Your task to perform on an android device: turn notification dots off Image 0: 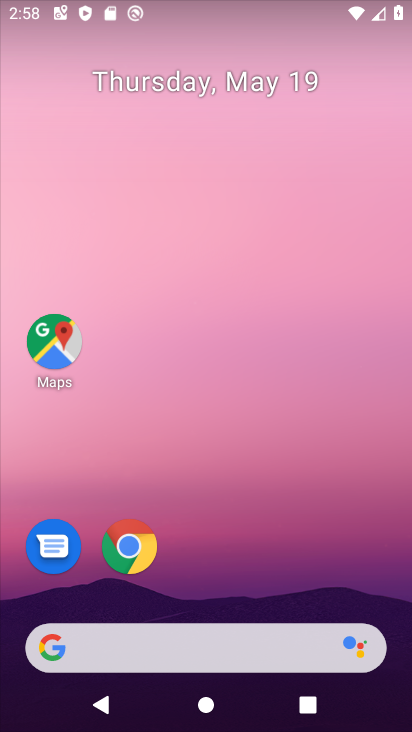
Step 0: drag from (244, 560) to (237, 138)
Your task to perform on an android device: turn notification dots off Image 1: 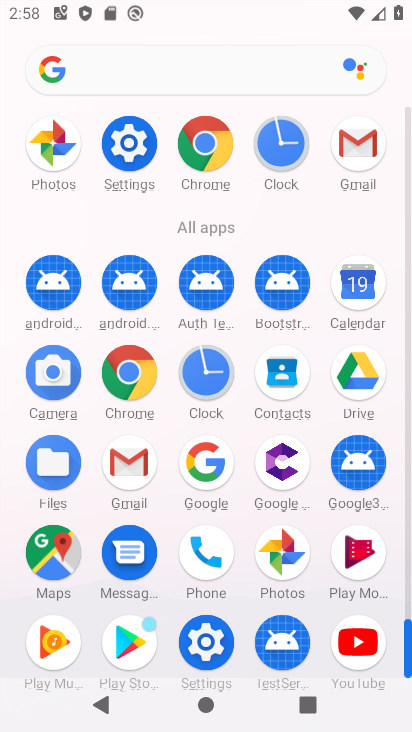
Step 1: click (128, 140)
Your task to perform on an android device: turn notification dots off Image 2: 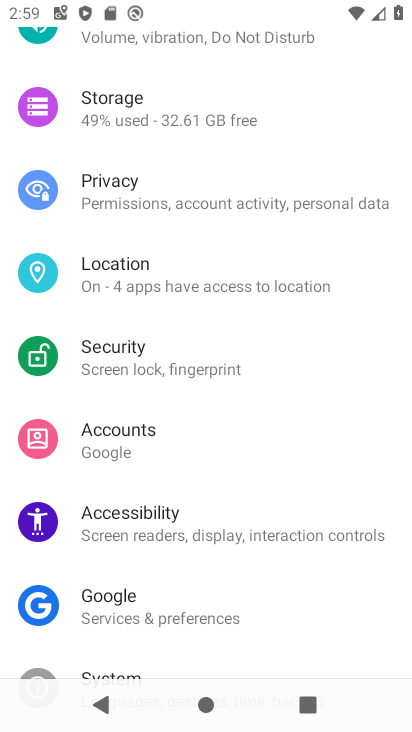
Step 2: drag from (173, 341) to (196, 469)
Your task to perform on an android device: turn notification dots off Image 3: 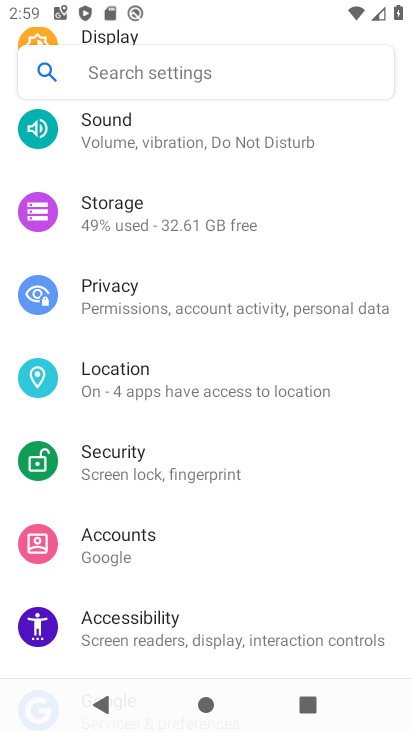
Step 3: drag from (186, 268) to (212, 369)
Your task to perform on an android device: turn notification dots off Image 4: 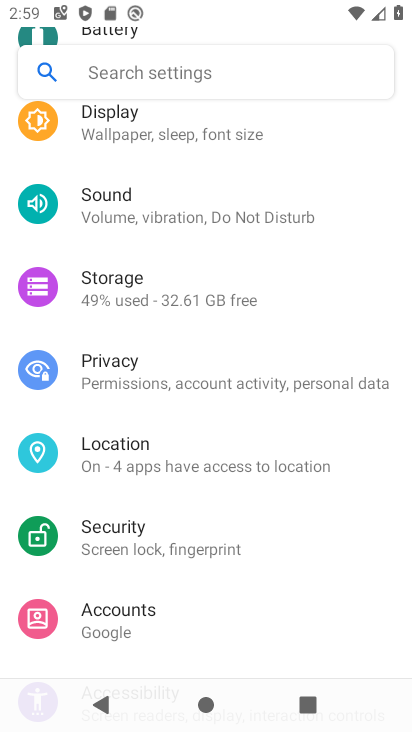
Step 4: drag from (172, 243) to (200, 338)
Your task to perform on an android device: turn notification dots off Image 5: 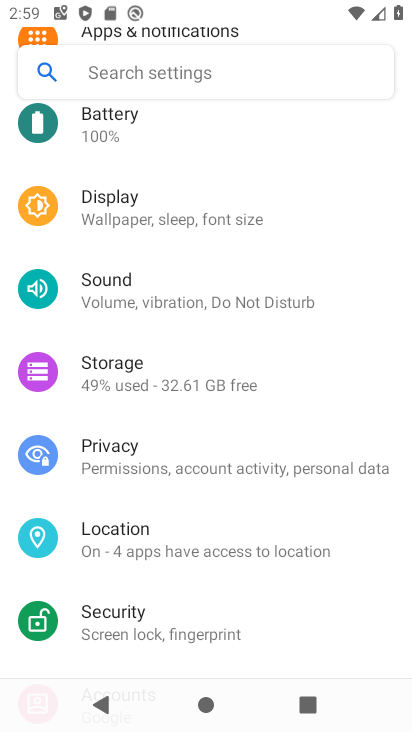
Step 5: drag from (195, 186) to (220, 330)
Your task to perform on an android device: turn notification dots off Image 6: 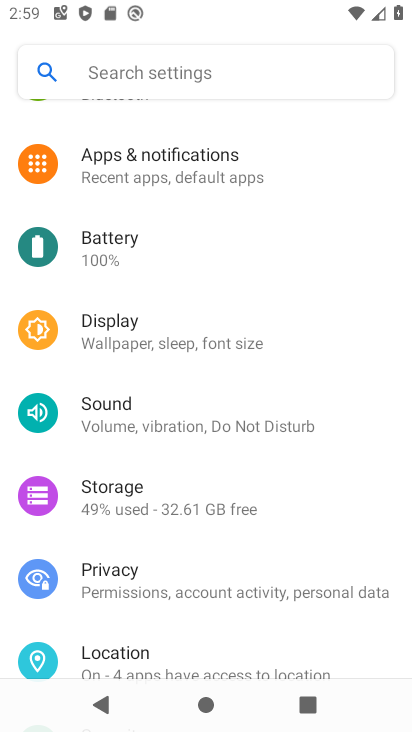
Step 6: drag from (190, 221) to (211, 334)
Your task to perform on an android device: turn notification dots off Image 7: 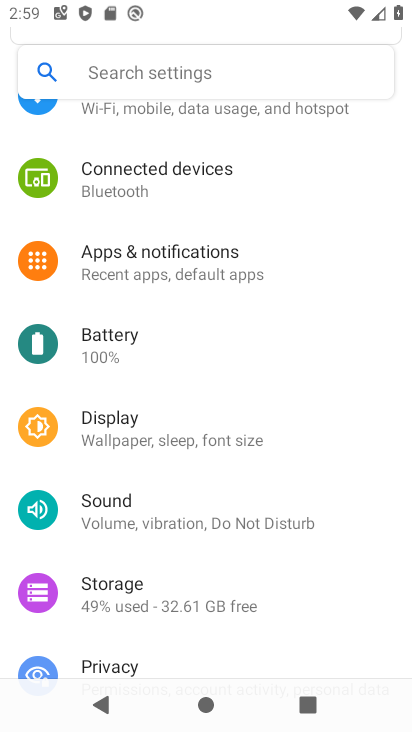
Step 7: click (197, 276)
Your task to perform on an android device: turn notification dots off Image 8: 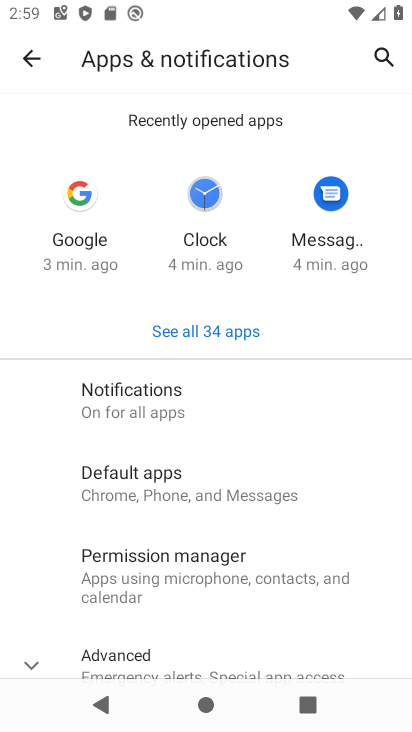
Step 8: click (141, 398)
Your task to perform on an android device: turn notification dots off Image 9: 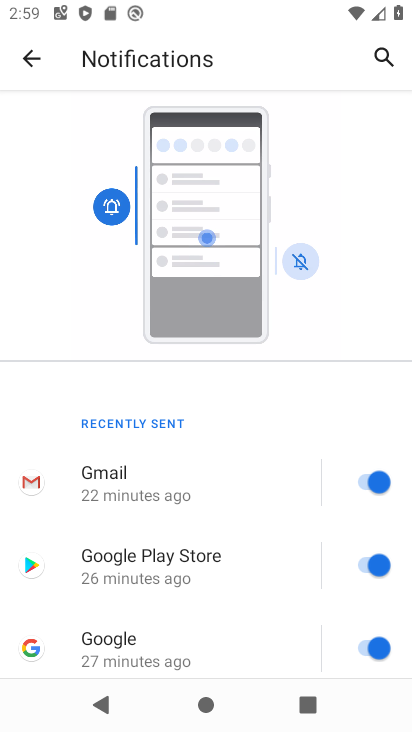
Step 9: drag from (143, 522) to (214, 432)
Your task to perform on an android device: turn notification dots off Image 10: 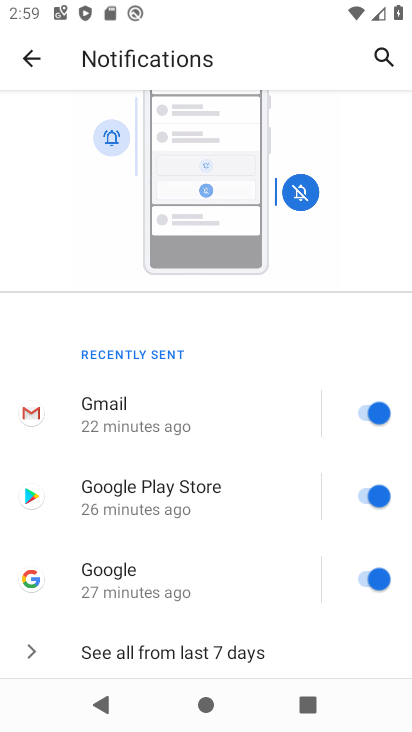
Step 10: drag from (164, 468) to (235, 385)
Your task to perform on an android device: turn notification dots off Image 11: 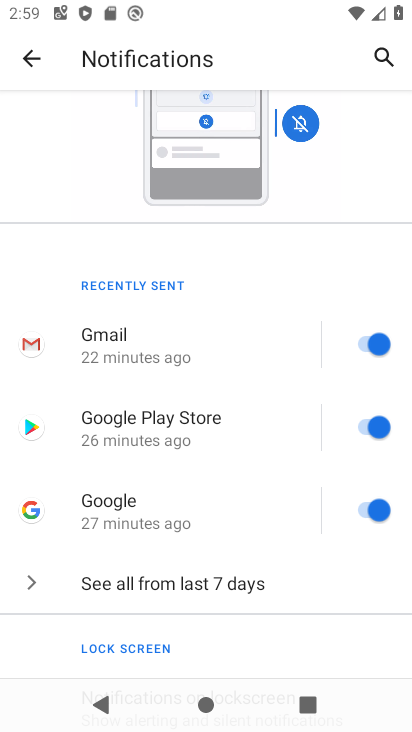
Step 11: drag from (178, 438) to (223, 377)
Your task to perform on an android device: turn notification dots off Image 12: 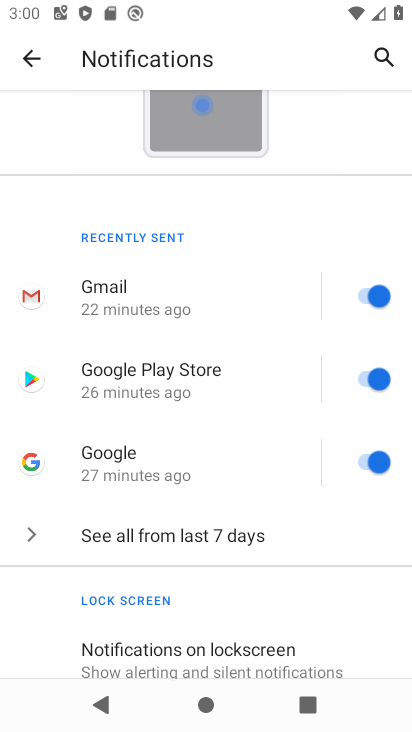
Step 12: drag from (122, 503) to (169, 404)
Your task to perform on an android device: turn notification dots off Image 13: 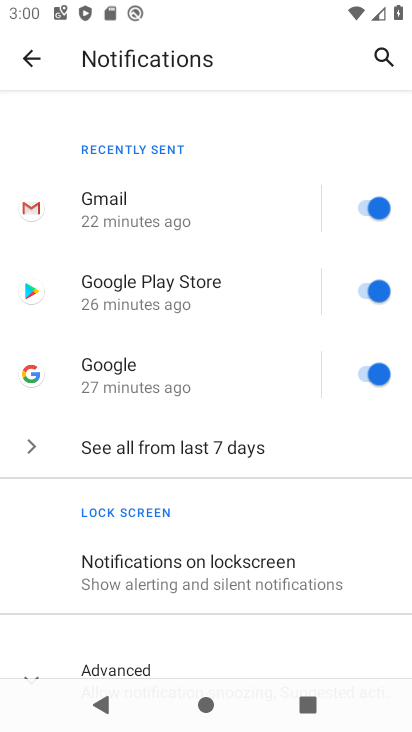
Step 13: drag from (130, 625) to (232, 466)
Your task to perform on an android device: turn notification dots off Image 14: 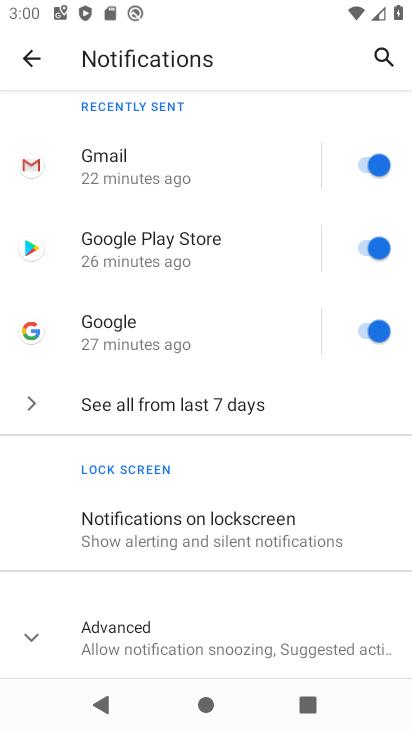
Step 14: click (170, 656)
Your task to perform on an android device: turn notification dots off Image 15: 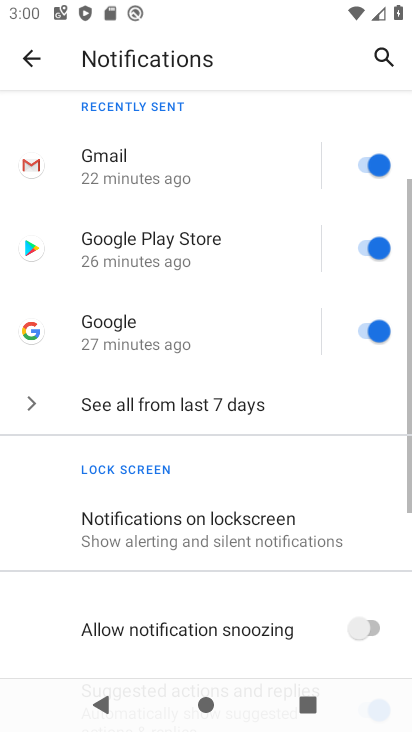
Step 15: drag from (159, 642) to (225, 518)
Your task to perform on an android device: turn notification dots off Image 16: 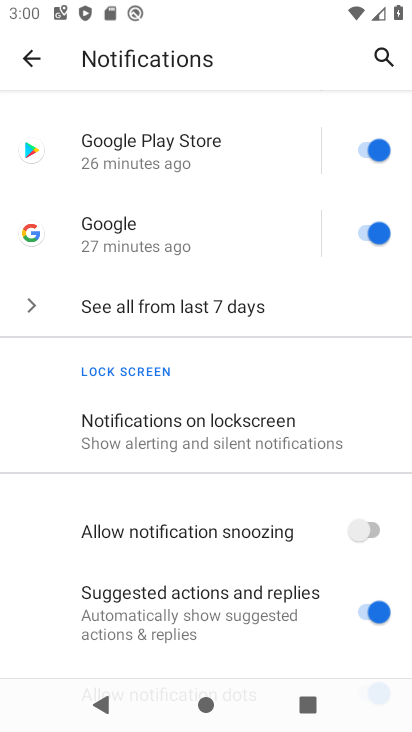
Step 16: drag from (214, 637) to (285, 506)
Your task to perform on an android device: turn notification dots off Image 17: 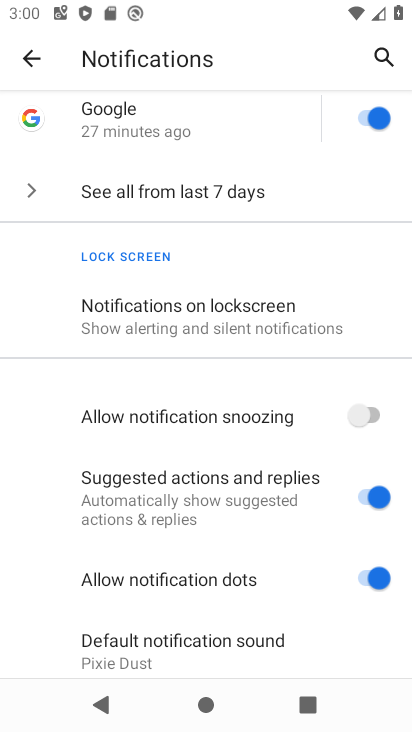
Step 17: click (378, 576)
Your task to perform on an android device: turn notification dots off Image 18: 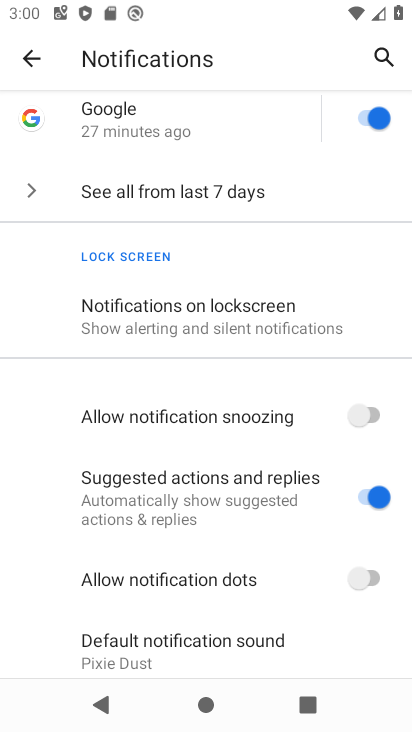
Step 18: task complete